Your task to perform on an android device: choose inbox layout in the gmail app Image 0: 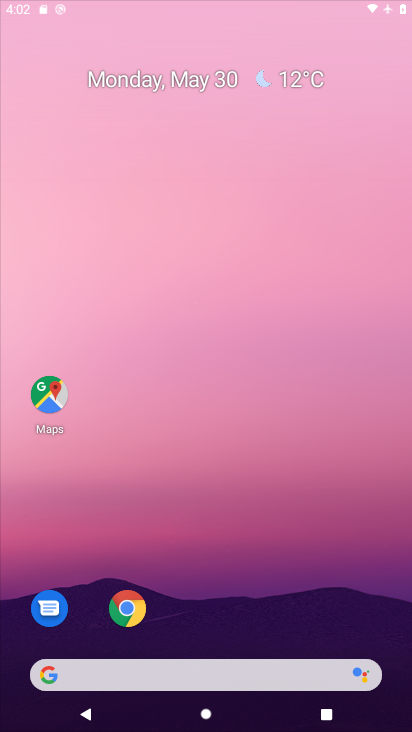
Step 0: drag from (290, 515) to (143, 17)
Your task to perform on an android device: choose inbox layout in the gmail app Image 1: 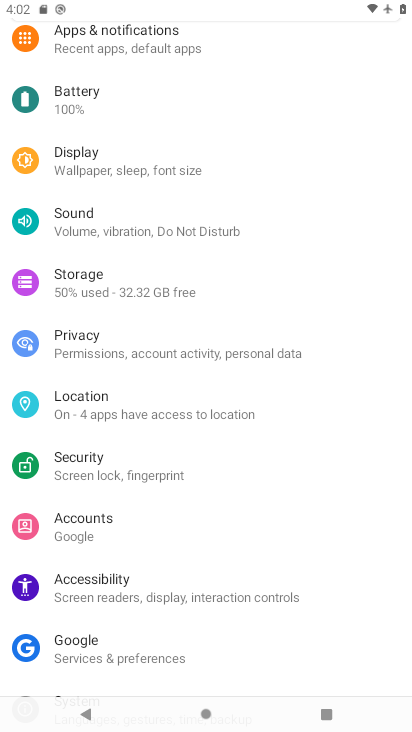
Step 1: press home button
Your task to perform on an android device: choose inbox layout in the gmail app Image 2: 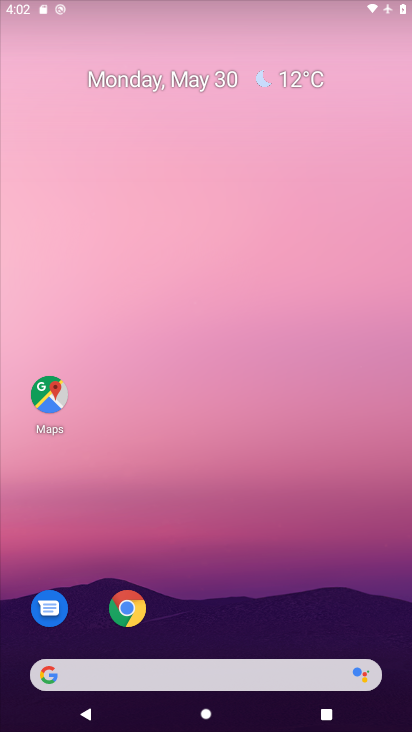
Step 2: drag from (291, 594) to (131, 33)
Your task to perform on an android device: choose inbox layout in the gmail app Image 3: 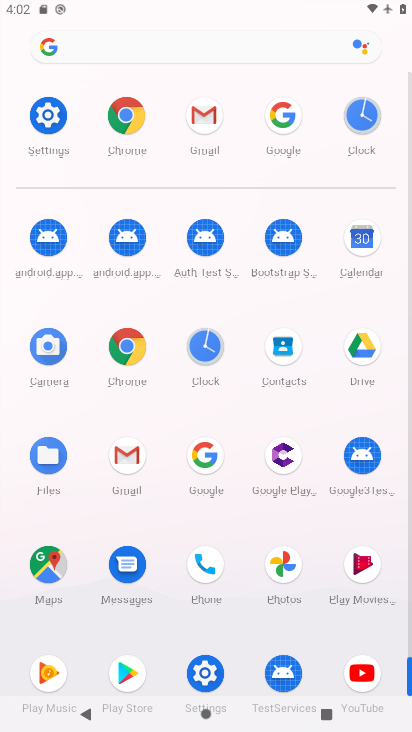
Step 3: click (128, 455)
Your task to perform on an android device: choose inbox layout in the gmail app Image 4: 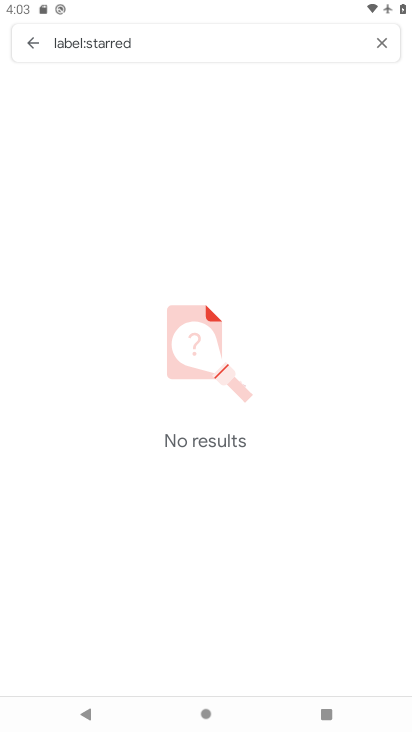
Step 4: click (27, 39)
Your task to perform on an android device: choose inbox layout in the gmail app Image 5: 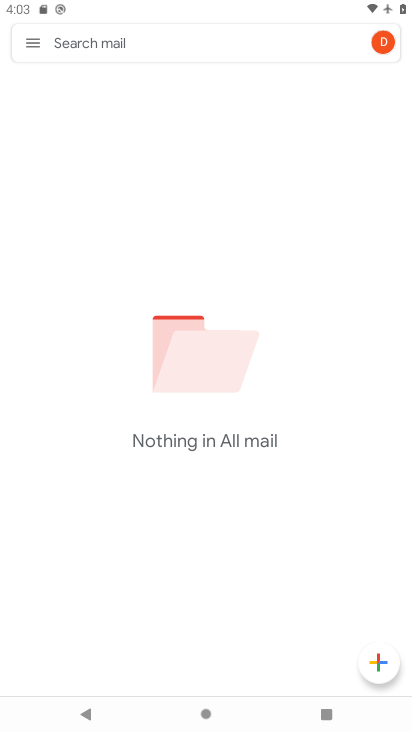
Step 5: click (31, 45)
Your task to perform on an android device: choose inbox layout in the gmail app Image 6: 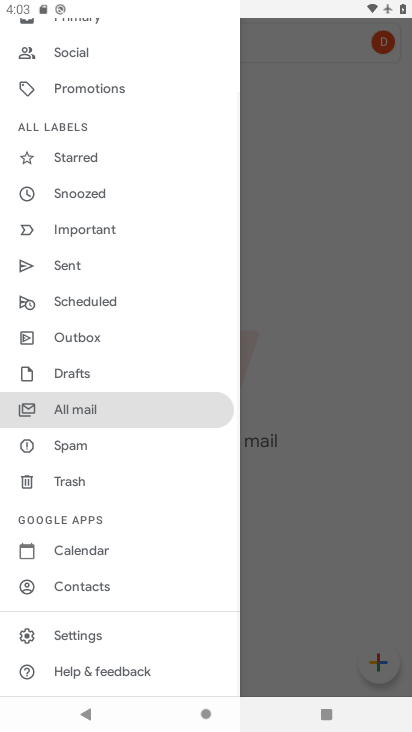
Step 6: click (139, 644)
Your task to perform on an android device: choose inbox layout in the gmail app Image 7: 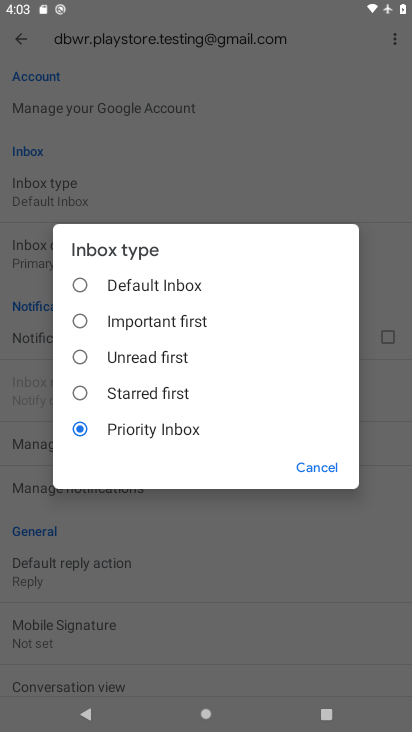
Step 7: click (303, 616)
Your task to perform on an android device: choose inbox layout in the gmail app Image 8: 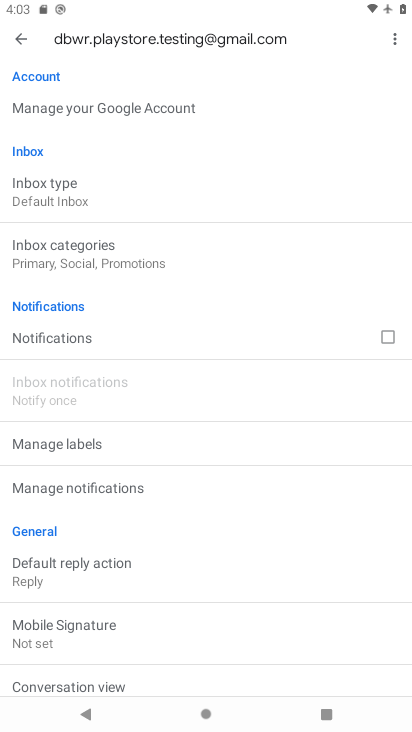
Step 8: click (98, 187)
Your task to perform on an android device: choose inbox layout in the gmail app Image 9: 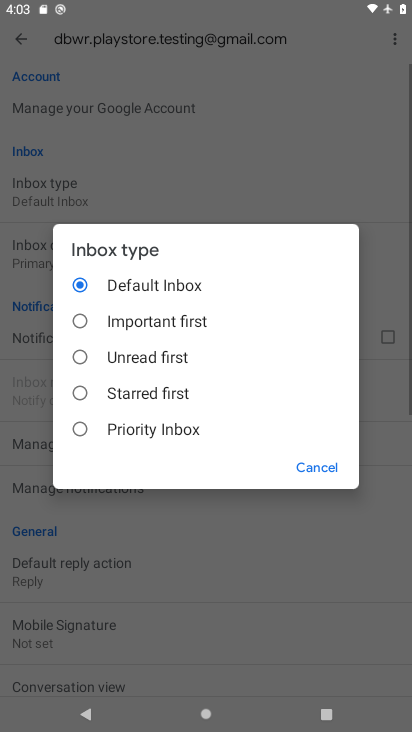
Step 9: click (166, 341)
Your task to perform on an android device: choose inbox layout in the gmail app Image 10: 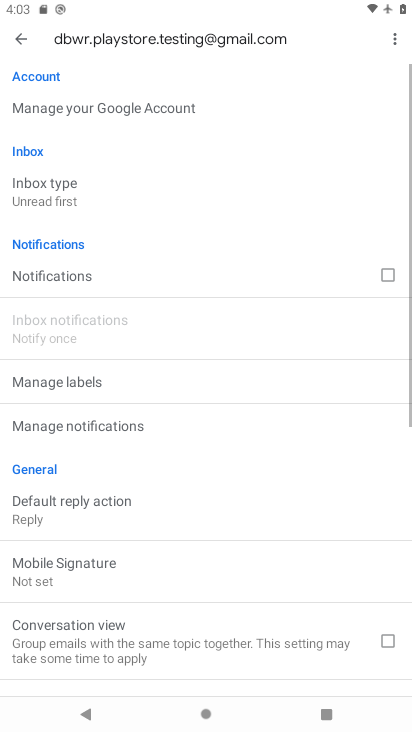
Step 10: task complete